Your task to perform on an android device: allow cookies in the chrome app Image 0: 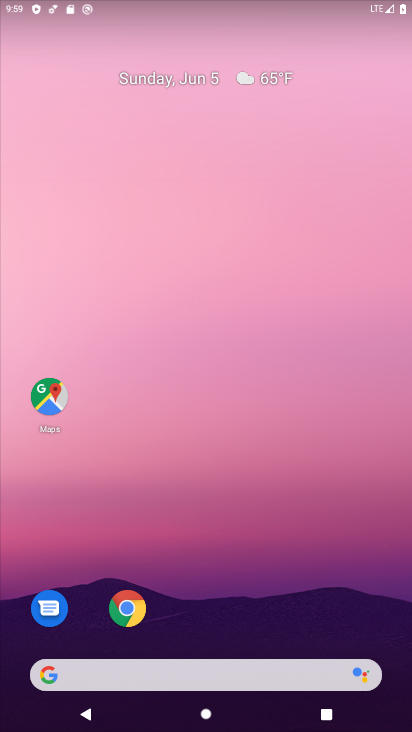
Step 0: click (123, 614)
Your task to perform on an android device: allow cookies in the chrome app Image 1: 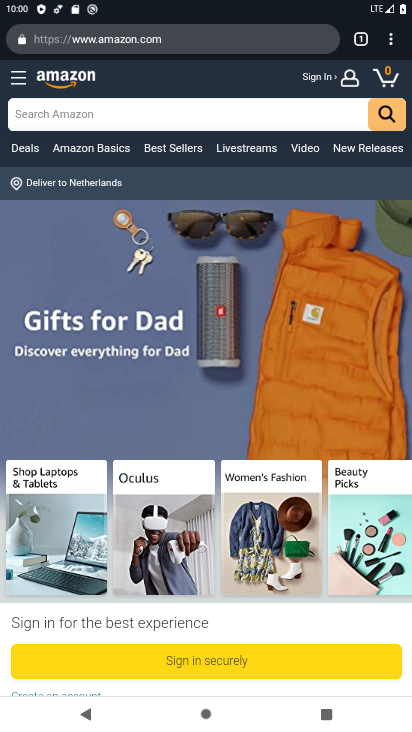
Step 1: drag from (392, 39) to (263, 509)
Your task to perform on an android device: allow cookies in the chrome app Image 2: 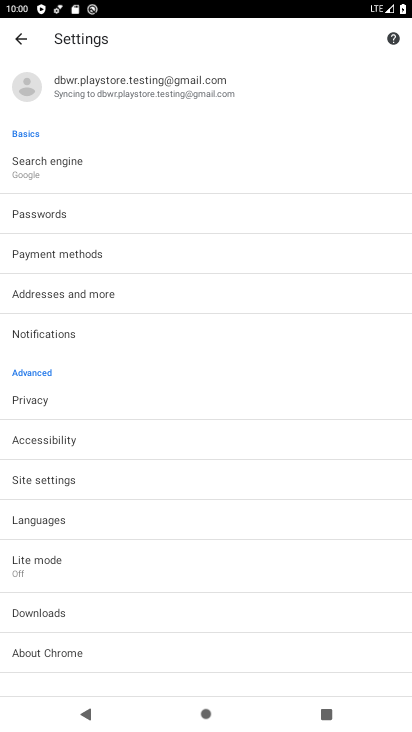
Step 2: click (46, 482)
Your task to perform on an android device: allow cookies in the chrome app Image 3: 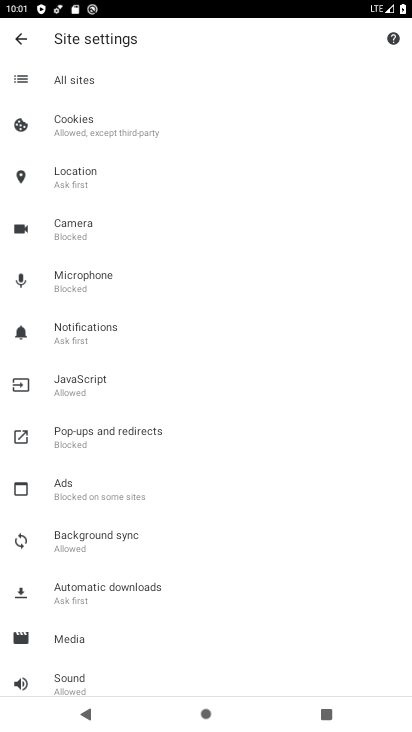
Step 3: click (72, 144)
Your task to perform on an android device: allow cookies in the chrome app Image 4: 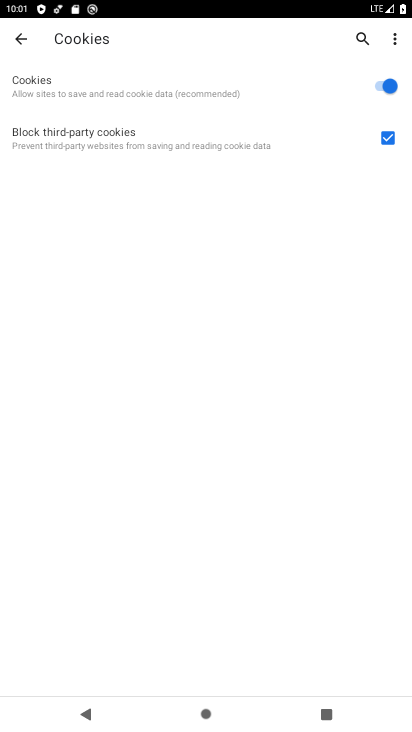
Step 4: task complete